Your task to perform on an android device: Open Chrome and go to settings Image 0: 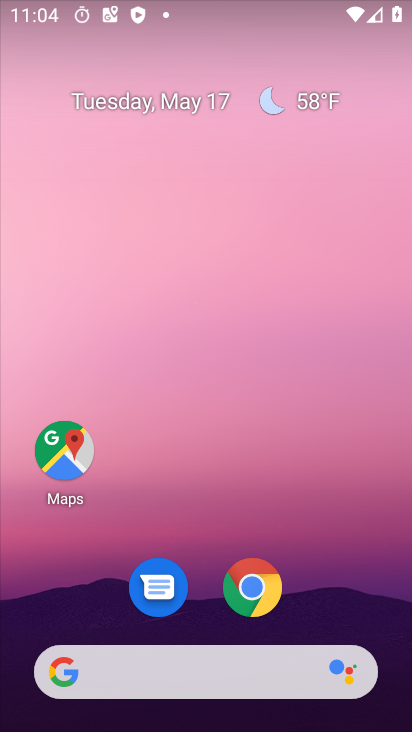
Step 0: click (252, 584)
Your task to perform on an android device: Open Chrome and go to settings Image 1: 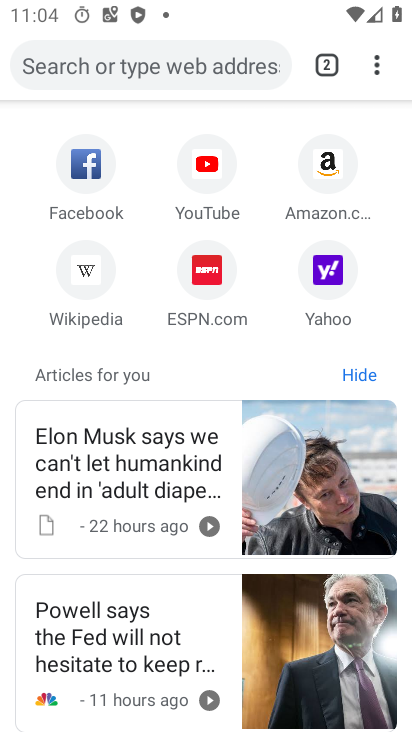
Step 1: click (379, 66)
Your task to perform on an android device: Open Chrome and go to settings Image 2: 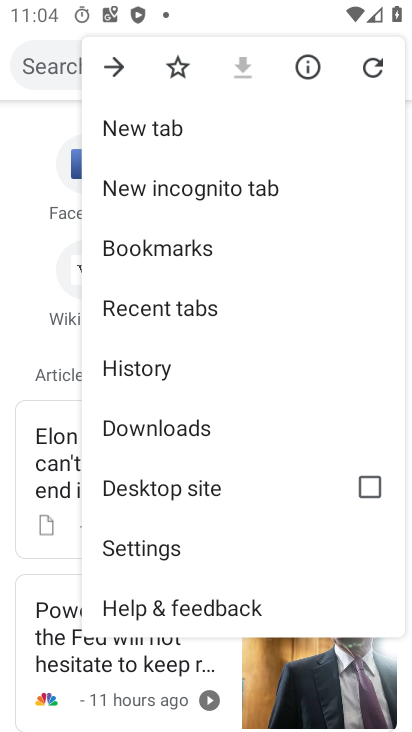
Step 2: click (145, 545)
Your task to perform on an android device: Open Chrome and go to settings Image 3: 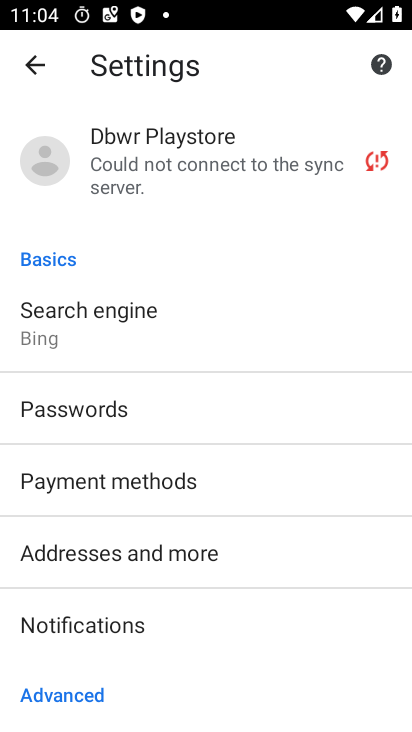
Step 3: task complete